Your task to perform on an android device: Toggle the flashlight Image 0: 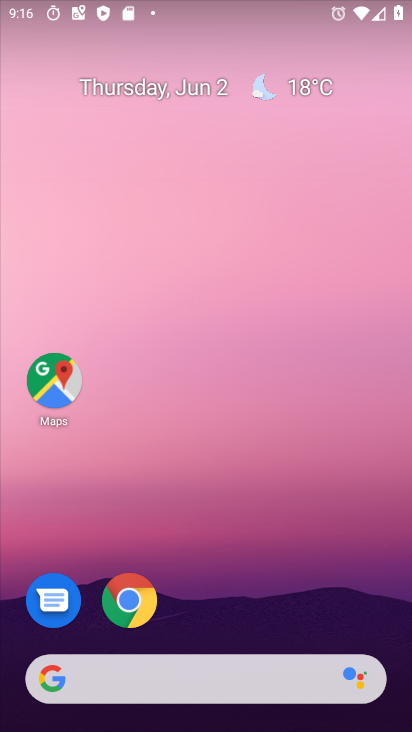
Step 0: drag from (308, 19) to (298, 395)
Your task to perform on an android device: Toggle the flashlight Image 1: 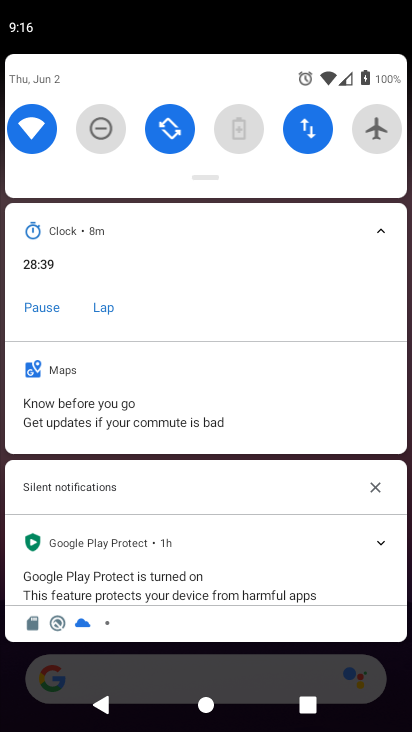
Step 1: drag from (205, 84) to (139, 307)
Your task to perform on an android device: Toggle the flashlight Image 2: 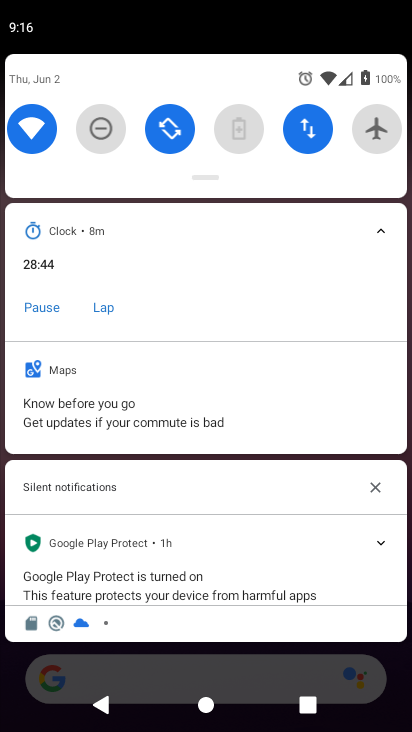
Step 2: drag from (205, 81) to (213, 398)
Your task to perform on an android device: Toggle the flashlight Image 3: 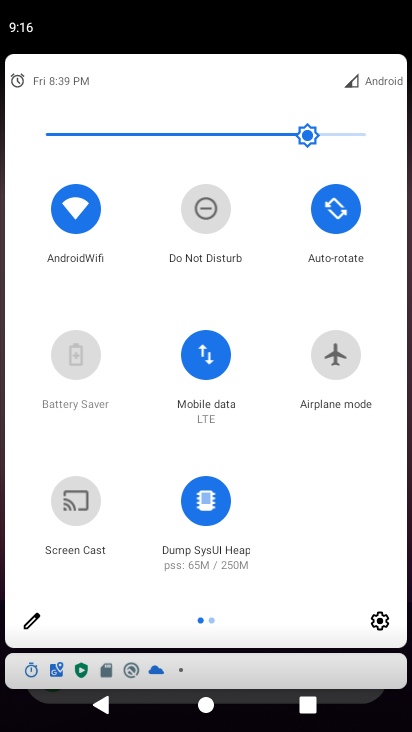
Step 3: click (31, 623)
Your task to perform on an android device: Toggle the flashlight Image 4: 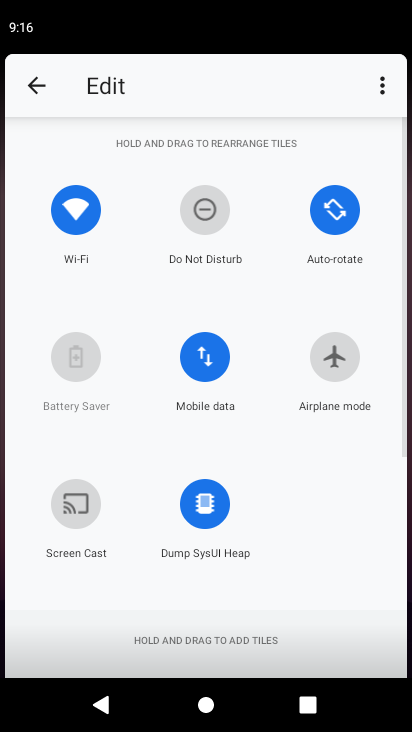
Step 4: task complete